Your task to perform on an android device: Open Youtube and go to "Your channel" Image 0: 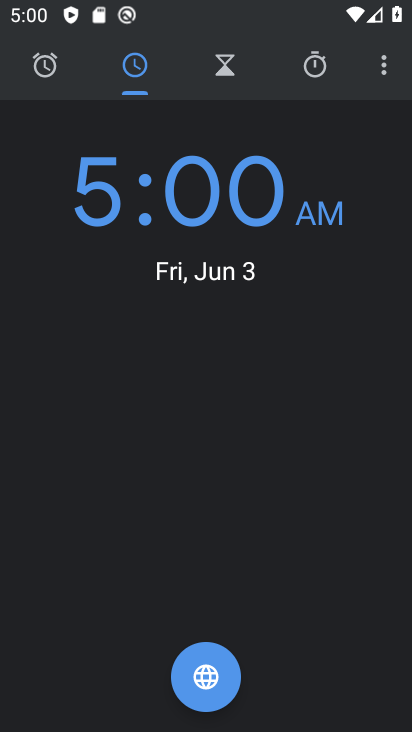
Step 0: press home button
Your task to perform on an android device: Open Youtube and go to "Your channel" Image 1: 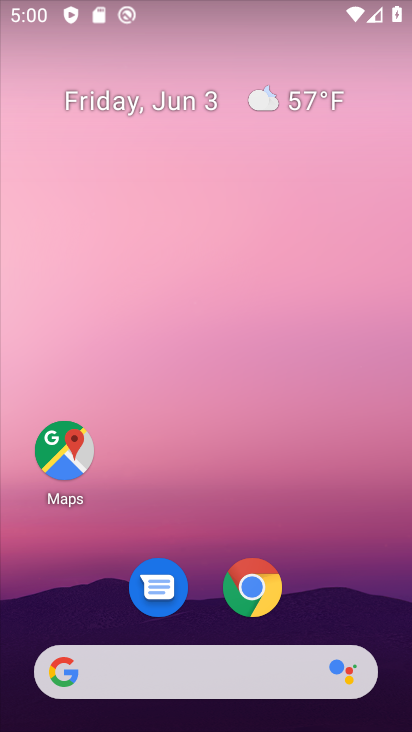
Step 1: drag from (202, 621) to (256, 102)
Your task to perform on an android device: Open Youtube and go to "Your channel" Image 2: 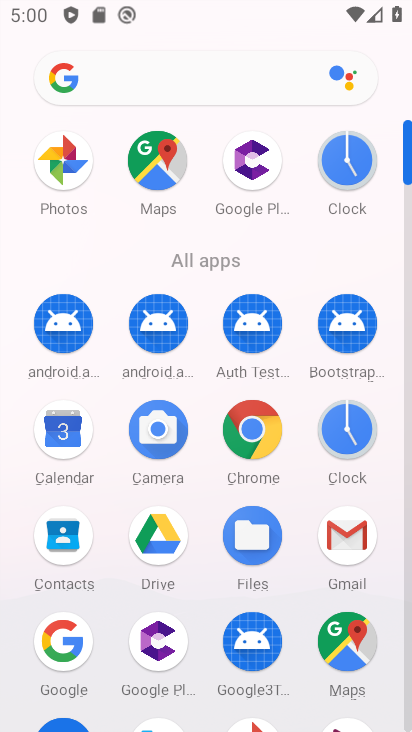
Step 2: drag from (205, 681) to (205, 228)
Your task to perform on an android device: Open Youtube and go to "Your channel" Image 3: 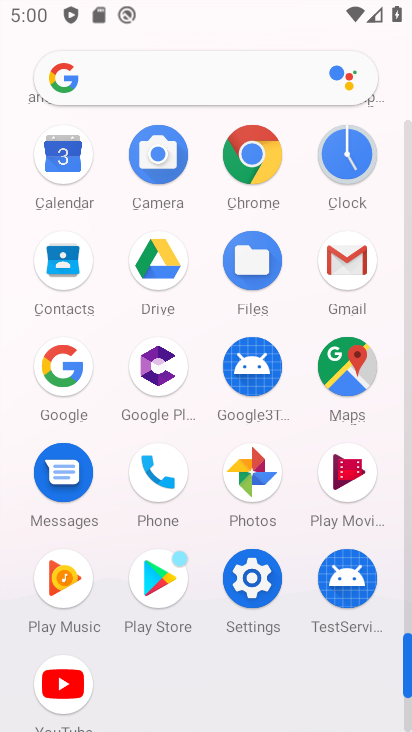
Step 3: click (64, 680)
Your task to perform on an android device: Open Youtube and go to "Your channel" Image 4: 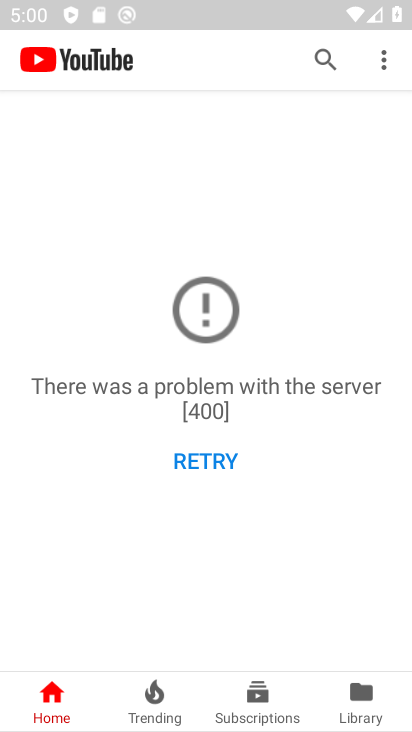
Step 4: click (323, 49)
Your task to perform on an android device: Open Youtube and go to "Your channel" Image 5: 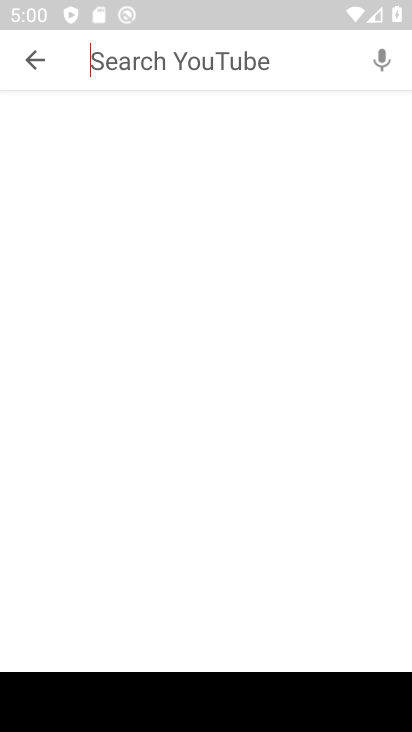
Step 5: type "your channel"
Your task to perform on an android device: Open Youtube and go to "Your channel" Image 6: 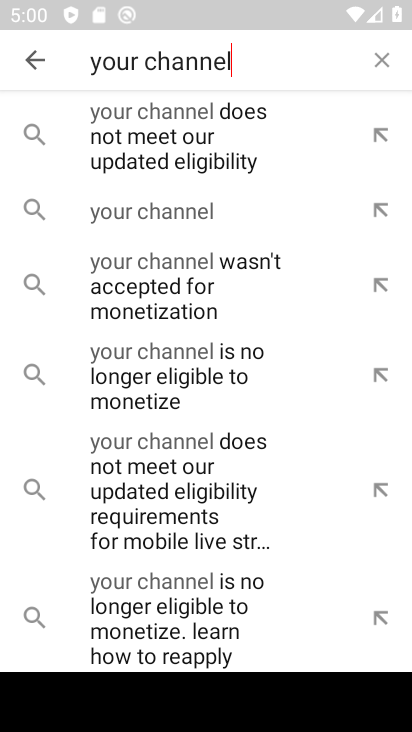
Step 6: click (164, 214)
Your task to perform on an android device: Open Youtube and go to "Your channel" Image 7: 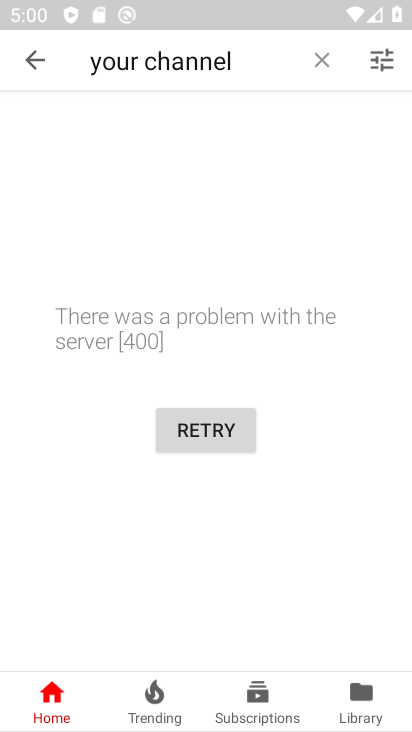
Step 7: task complete